Your task to perform on an android device: show emergency info Image 0: 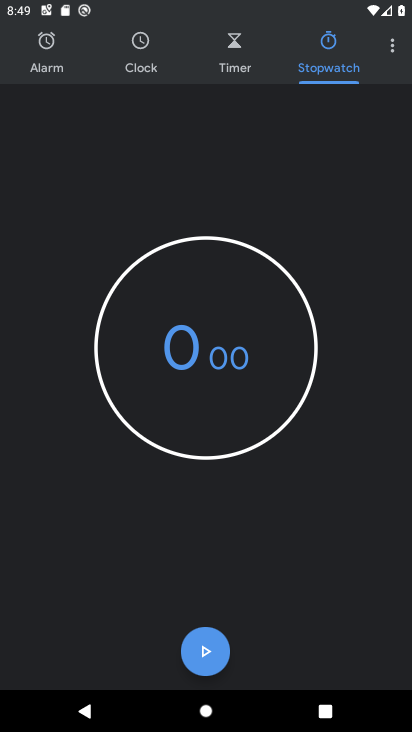
Step 0: press home button
Your task to perform on an android device: show emergency info Image 1: 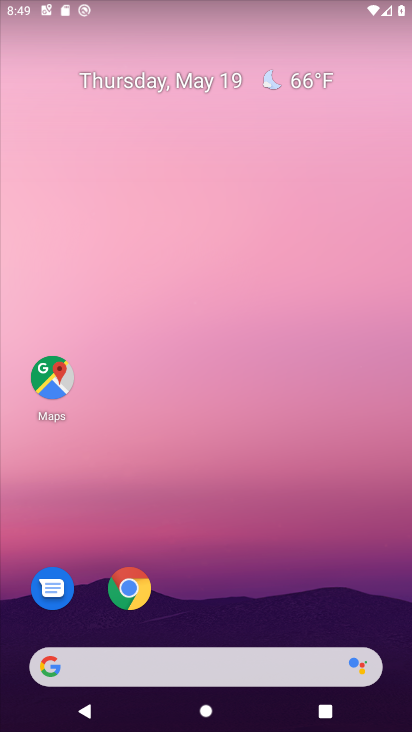
Step 1: drag from (356, 604) to (318, 191)
Your task to perform on an android device: show emergency info Image 2: 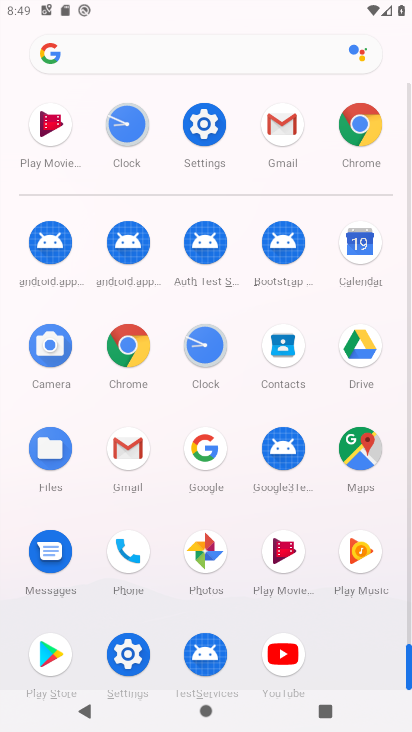
Step 2: click (213, 128)
Your task to perform on an android device: show emergency info Image 3: 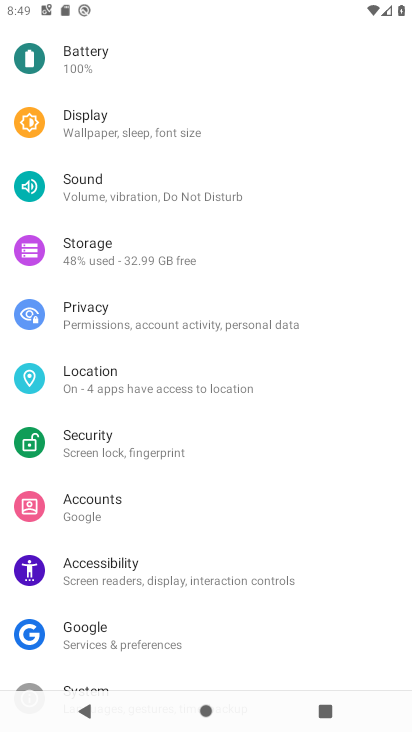
Step 3: drag from (333, 517) to (337, 355)
Your task to perform on an android device: show emergency info Image 4: 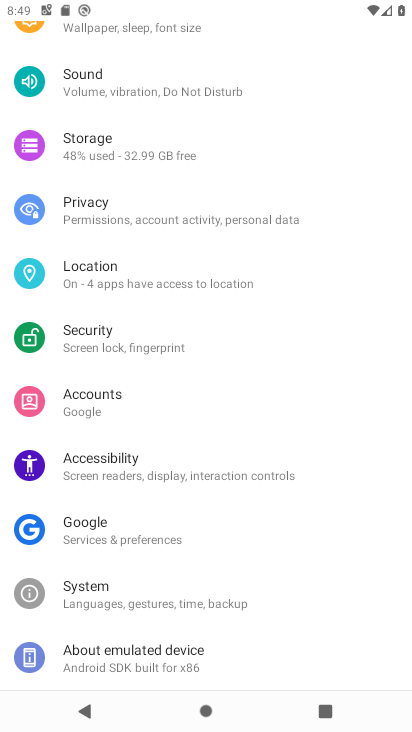
Step 4: drag from (360, 588) to (356, 469)
Your task to perform on an android device: show emergency info Image 5: 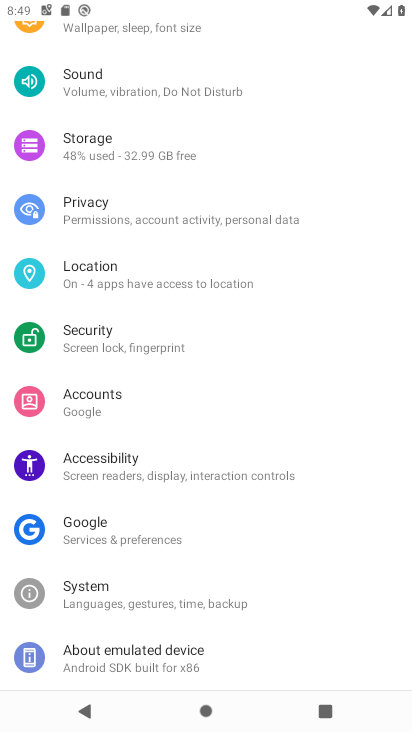
Step 5: click (194, 647)
Your task to perform on an android device: show emergency info Image 6: 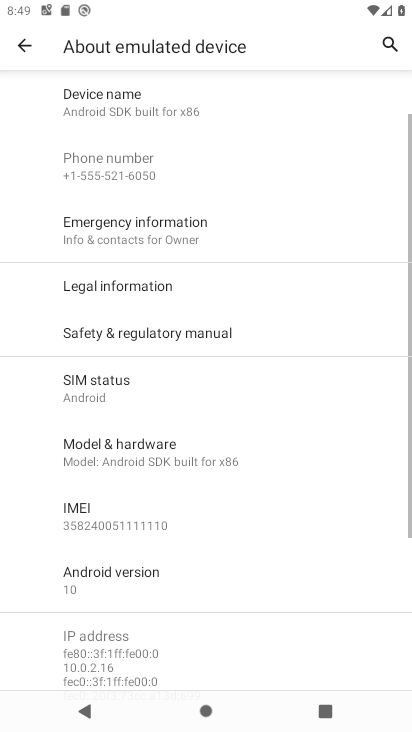
Step 6: drag from (305, 620) to (331, 494)
Your task to perform on an android device: show emergency info Image 7: 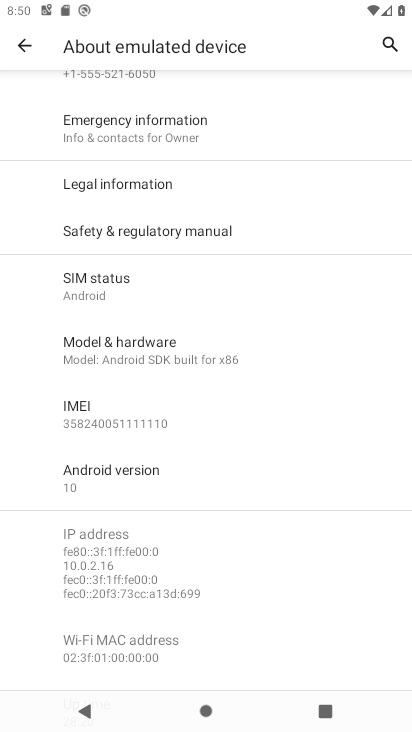
Step 7: drag from (325, 604) to (339, 502)
Your task to perform on an android device: show emergency info Image 8: 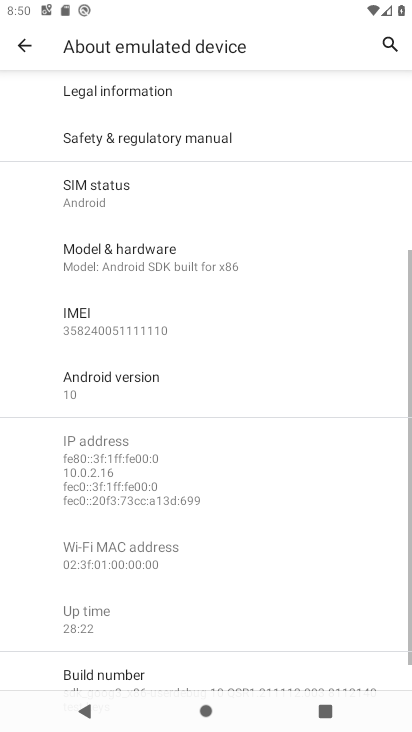
Step 8: drag from (342, 338) to (331, 416)
Your task to perform on an android device: show emergency info Image 9: 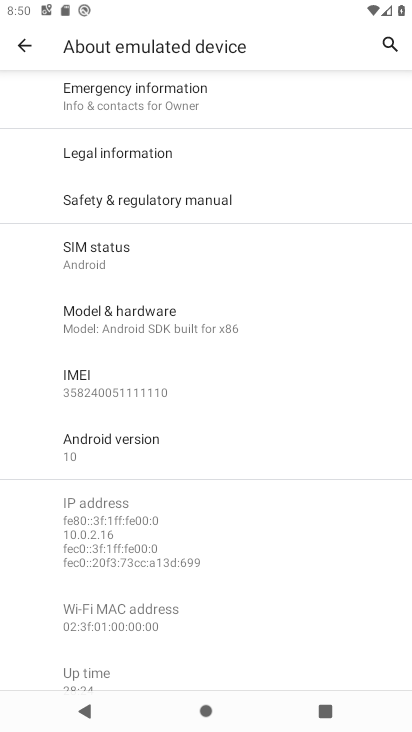
Step 9: drag from (332, 307) to (308, 473)
Your task to perform on an android device: show emergency info Image 10: 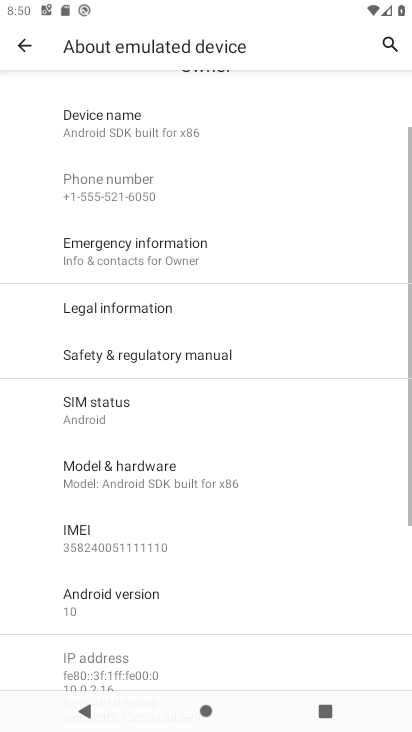
Step 10: click (239, 259)
Your task to perform on an android device: show emergency info Image 11: 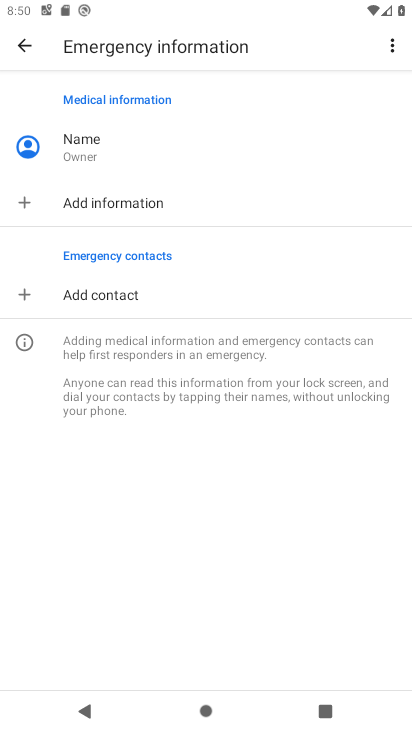
Step 11: task complete